Your task to perform on an android device: What's the weather going to be this weekend? Image 0: 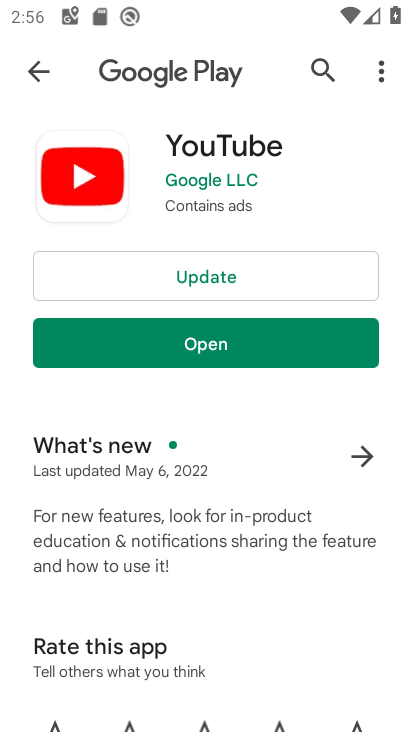
Step 0: press home button
Your task to perform on an android device: What's the weather going to be this weekend? Image 1: 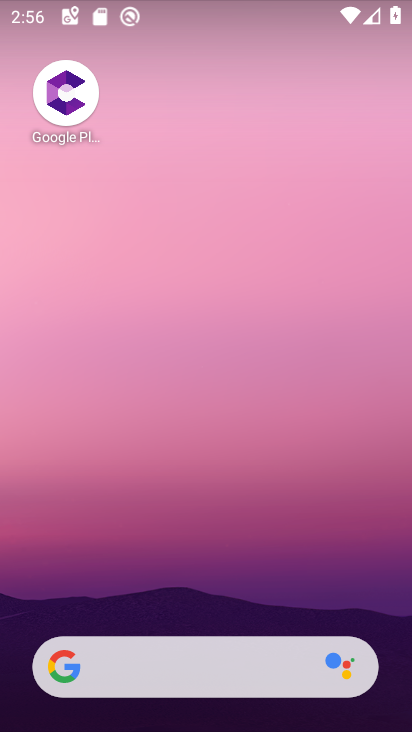
Step 1: drag from (181, 632) to (186, 199)
Your task to perform on an android device: What's the weather going to be this weekend? Image 2: 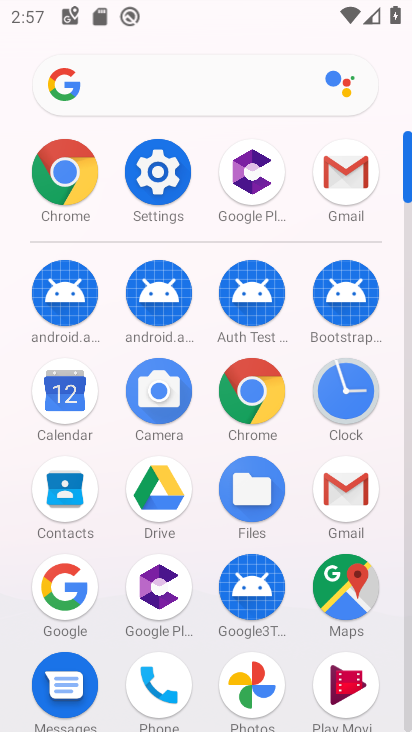
Step 2: click (211, 73)
Your task to perform on an android device: What's the weather going to be this weekend? Image 3: 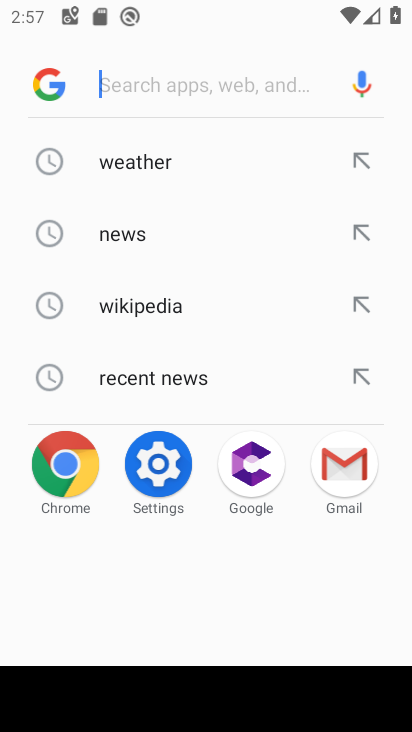
Step 3: type "weather going to be this weekend"
Your task to perform on an android device: What's the weather going to be this weekend? Image 4: 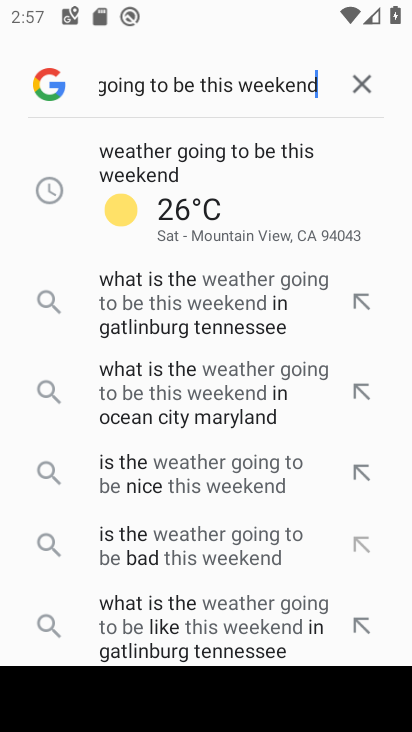
Step 4: click (195, 194)
Your task to perform on an android device: What's the weather going to be this weekend? Image 5: 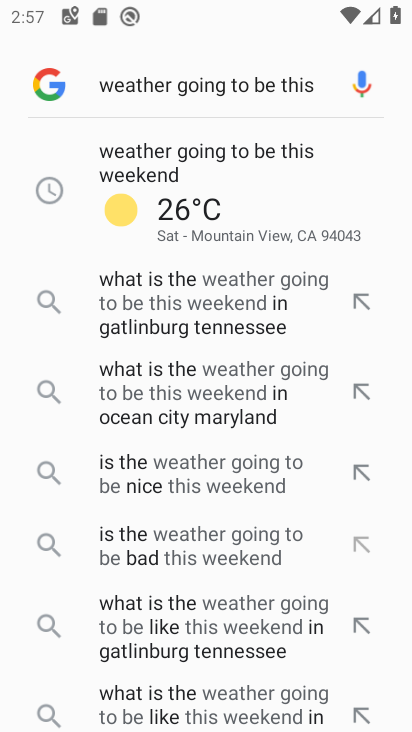
Step 5: task complete